Your task to perform on an android device: Open the calendar and show me this week's events? Image 0: 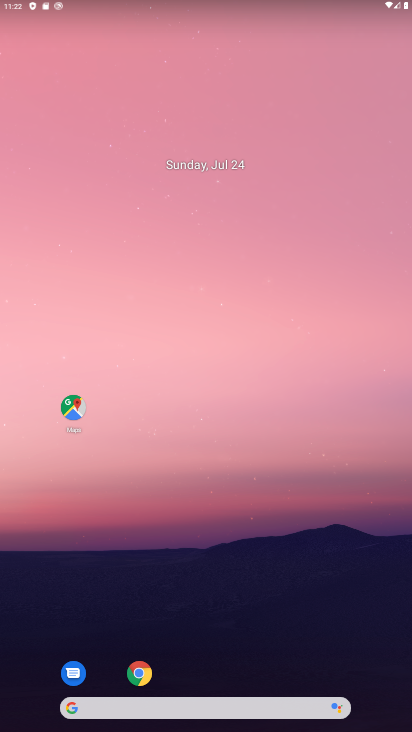
Step 0: press home button
Your task to perform on an android device: Open the calendar and show me this week's events? Image 1: 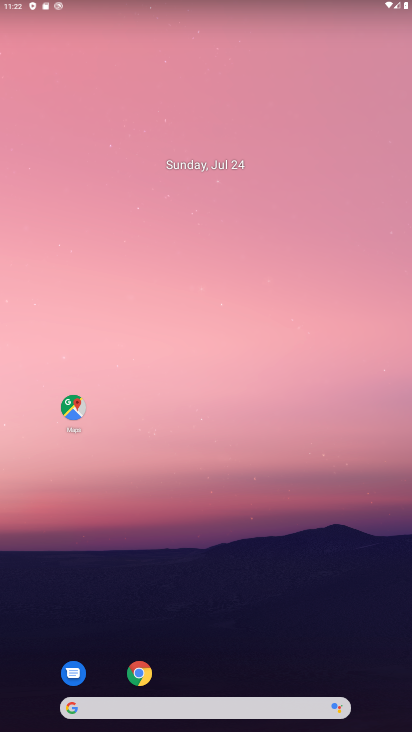
Step 1: drag from (219, 645) to (193, 155)
Your task to perform on an android device: Open the calendar and show me this week's events? Image 2: 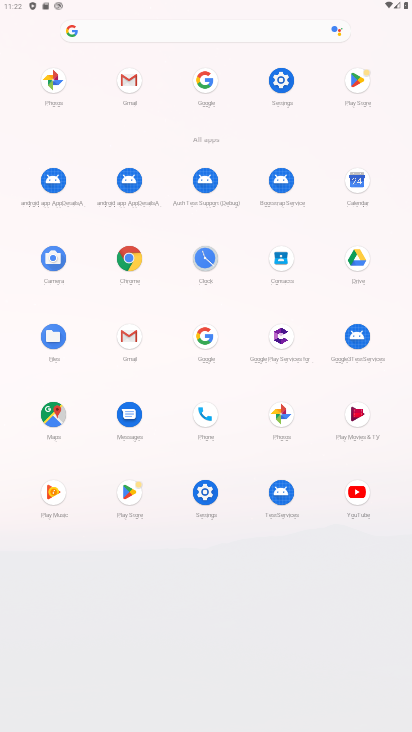
Step 2: click (356, 171)
Your task to perform on an android device: Open the calendar and show me this week's events? Image 3: 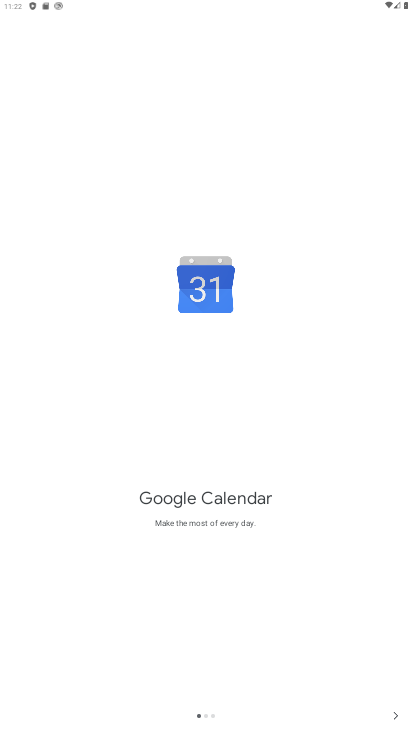
Step 3: click (396, 709)
Your task to perform on an android device: Open the calendar and show me this week's events? Image 4: 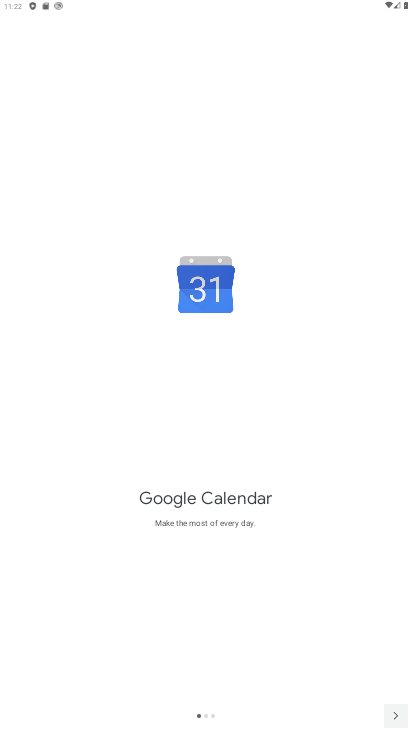
Step 4: click (396, 710)
Your task to perform on an android device: Open the calendar and show me this week's events? Image 5: 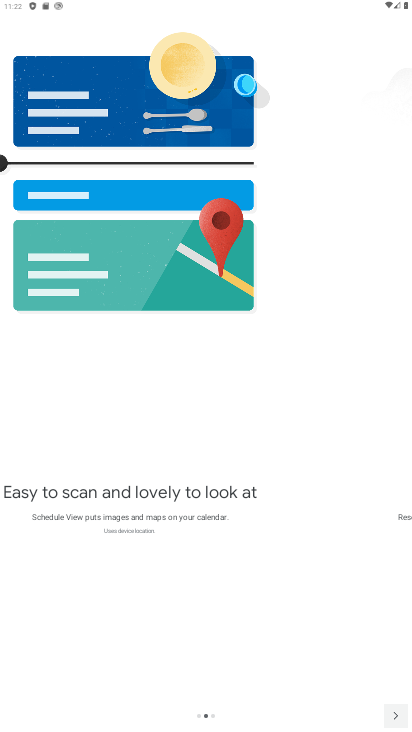
Step 5: click (396, 710)
Your task to perform on an android device: Open the calendar and show me this week's events? Image 6: 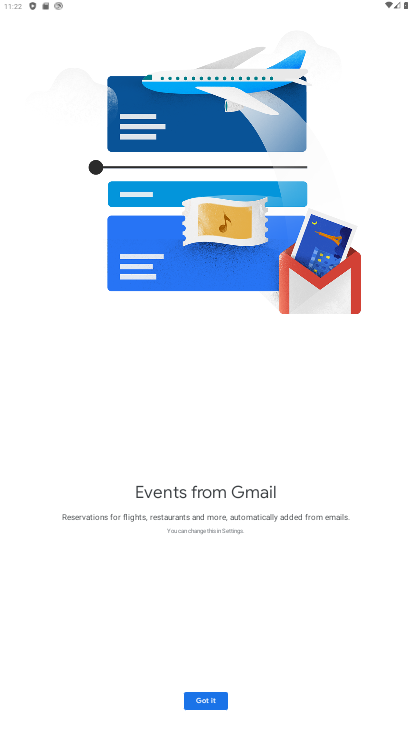
Step 6: click (396, 710)
Your task to perform on an android device: Open the calendar and show me this week's events? Image 7: 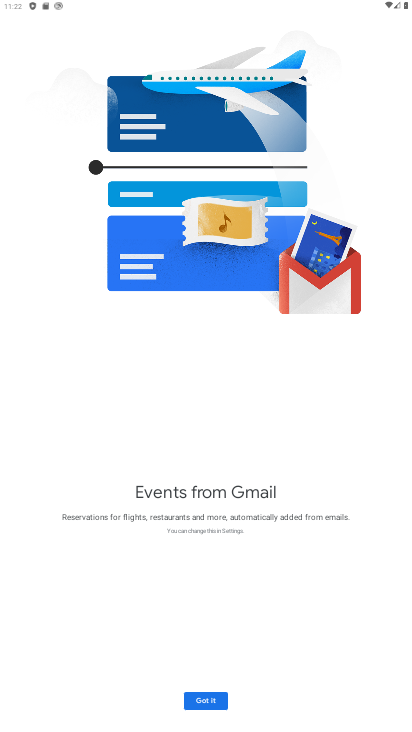
Step 7: click (396, 710)
Your task to perform on an android device: Open the calendar and show me this week's events? Image 8: 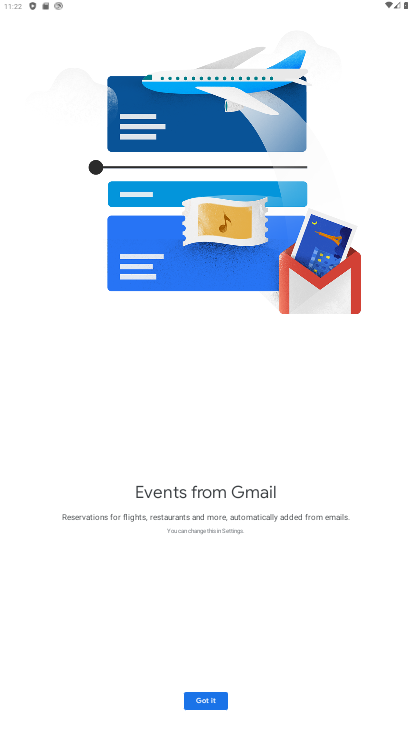
Step 8: click (197, 703)
Your task to perform on an android device: Open the calendar and show me this week's events? Image 9: 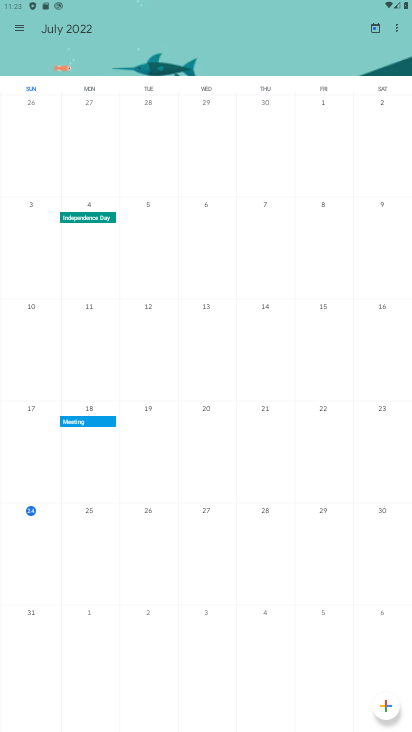
Step 9: click (21, 25)
Your task to perform on an android device: Open the calendar and show me this week's events? Image 10: 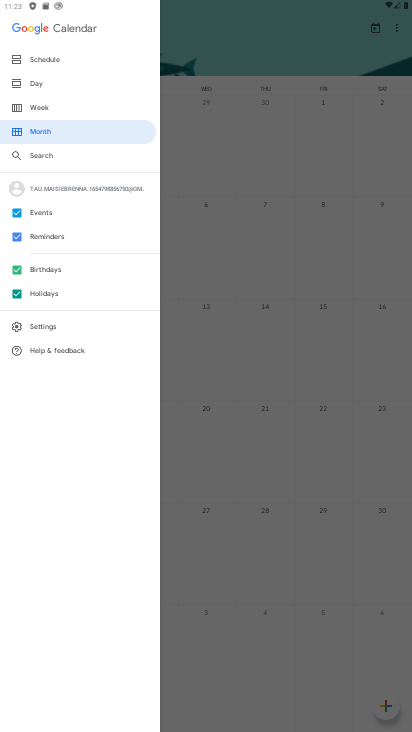
Step 10: click (50, 99)
Your task to perform on an android device: Open the calendar and show me this week's events? Image 11: 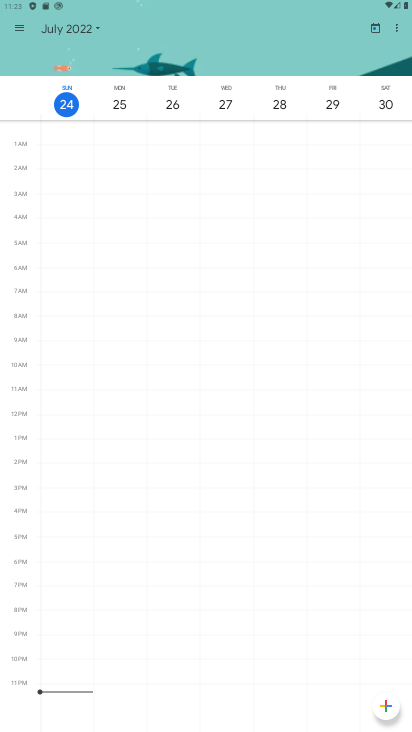
Step 11: task complete